Your task to perform on an android device: Open wifi settings Image 0: 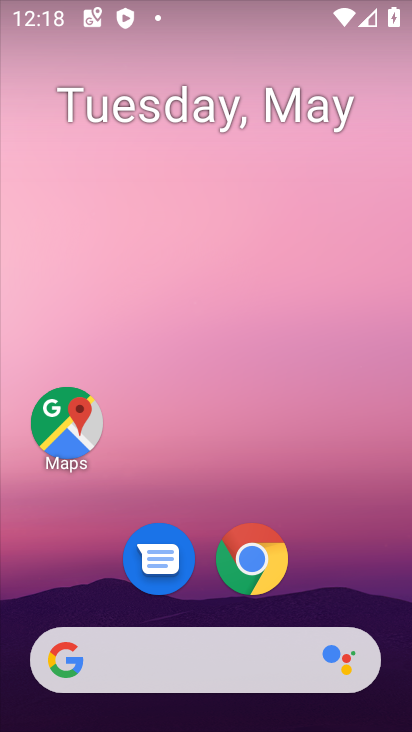
Step 0: drag from (347, 579) to (323, 148)
Your task to perform on an android device: Open wifi settings Image 1: 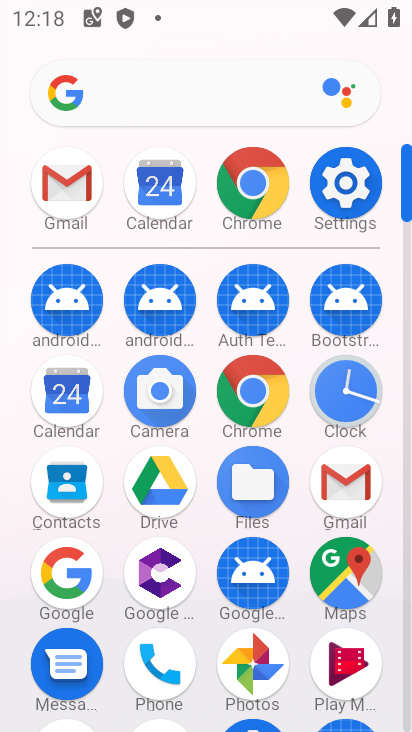
Step 1: click (324, 168)
Your task to perform on an android device: Open wifi settings Image 2: 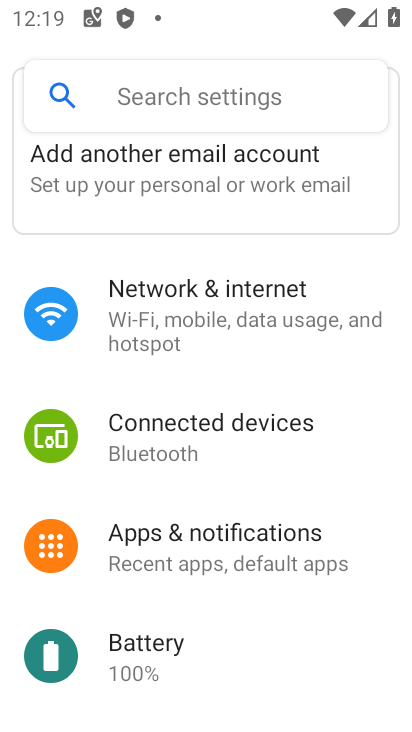
Step 2: click (305, 171)
Your task to perform on an android device: Open wifi settings Image 3: 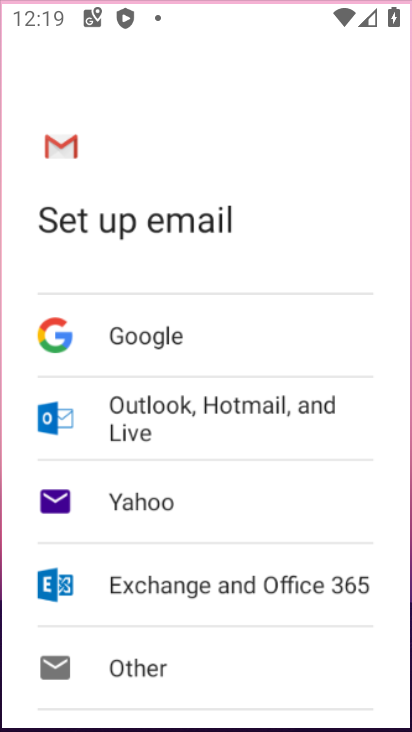
Step 3: click (294, 310)
Your task to perform on an android device: Open wifi settings Image 4: 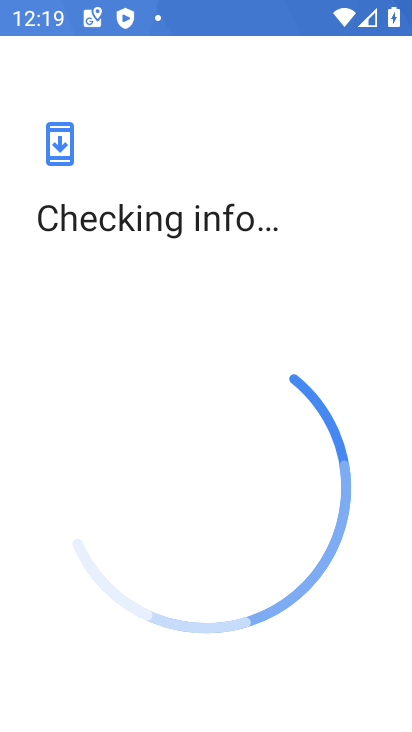
Step 4: press home button
Your task to perform on an android device: Open wifi settings Image 5: 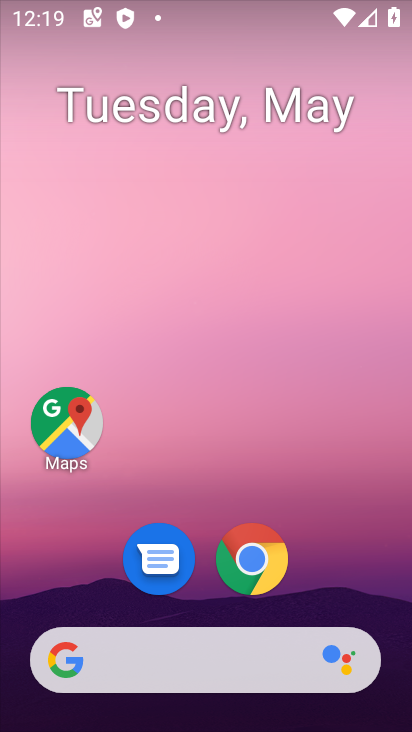
Step 5: drag from (355, 564) to (314, 0)
Your task to perform on an android device: Open wifi settings Image 6: 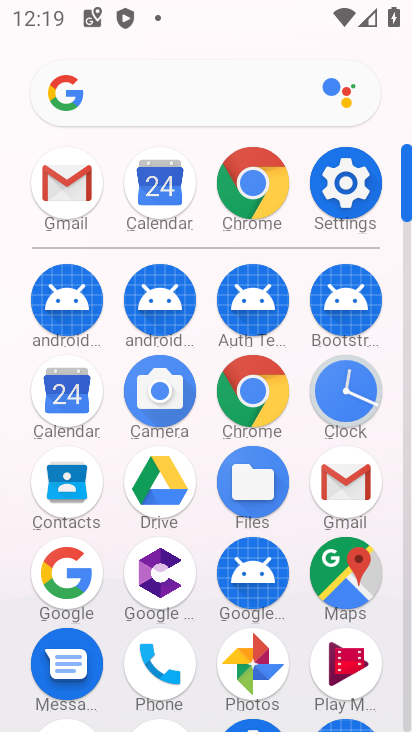
Step 6: click (345, 188)
Your task to perform on an android device: Open wifi settings Image 7: 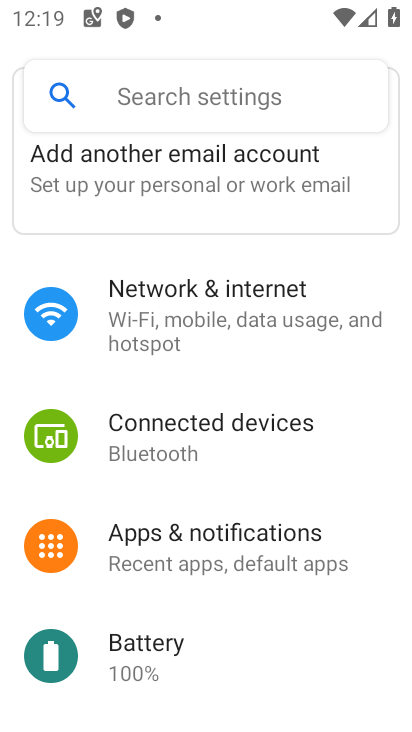
Step 7: click (238, 315)
Your task to perform on an android device: Open wifi settings Image 8: 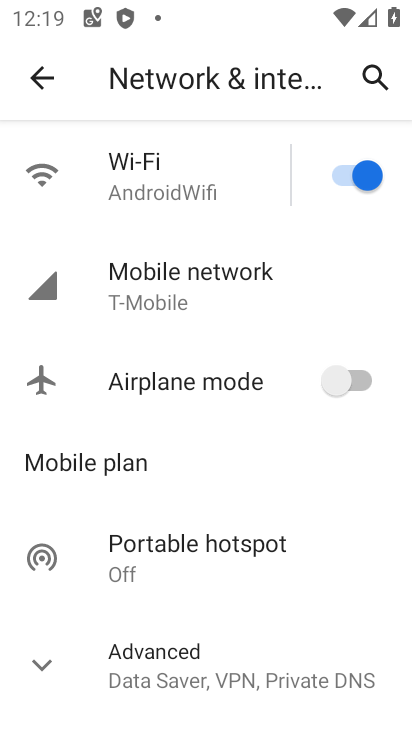
Step 8: click (169, 181)
Your task to perform on an android device: Open wifi settings Image 9: 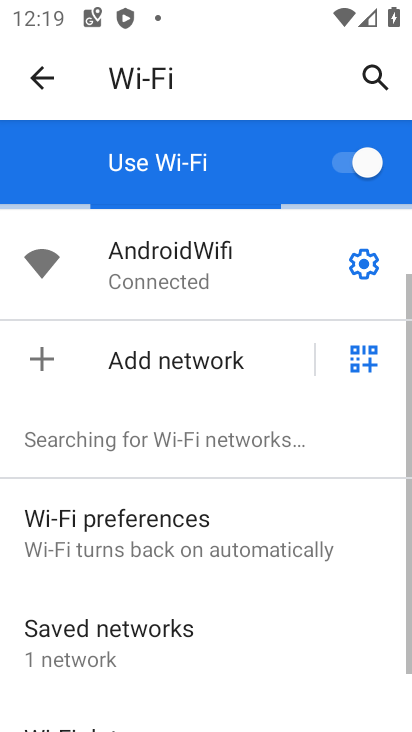
Step 9: task complete